Your task to perform on an android device: toggle improve location accuracy Image 0: 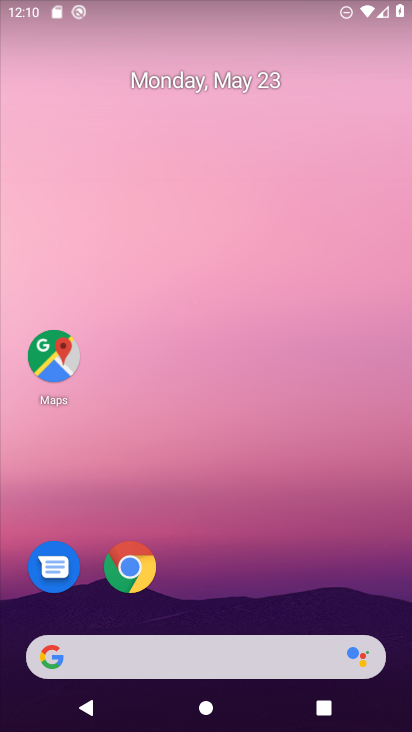
Step 0: drag from (172, 608) to (243, 88)
Your task to perform on an android device: toggle improve location accuracy Image 1: 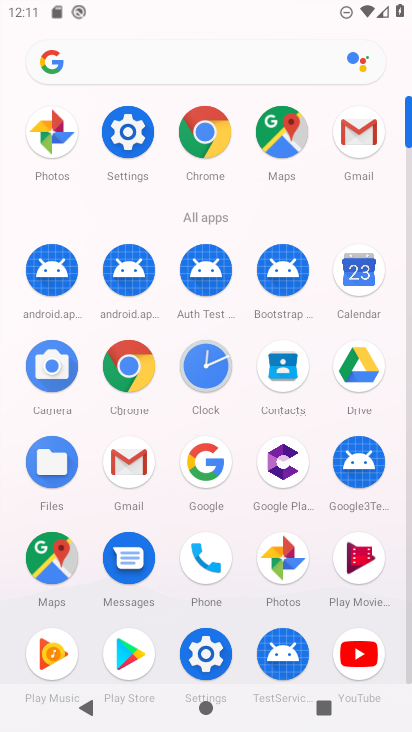
Step 1: click (122, 148)
Your task to perform on an android device: toggle improve location accuracy Image 2: 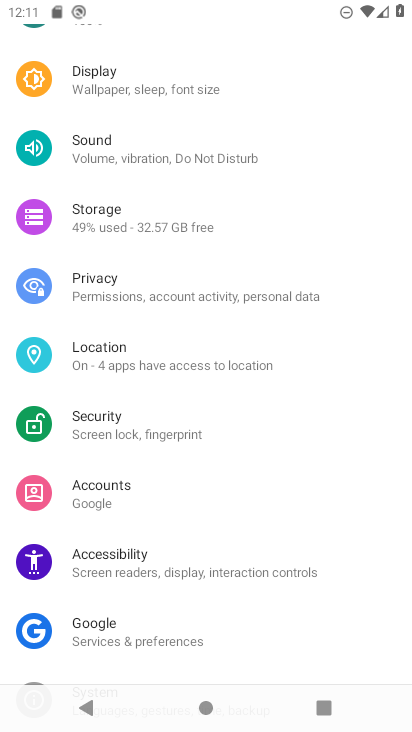
Step 2: click (104, 301)
Your task to perform on an android device: toggle improve location accuracy Image 3: 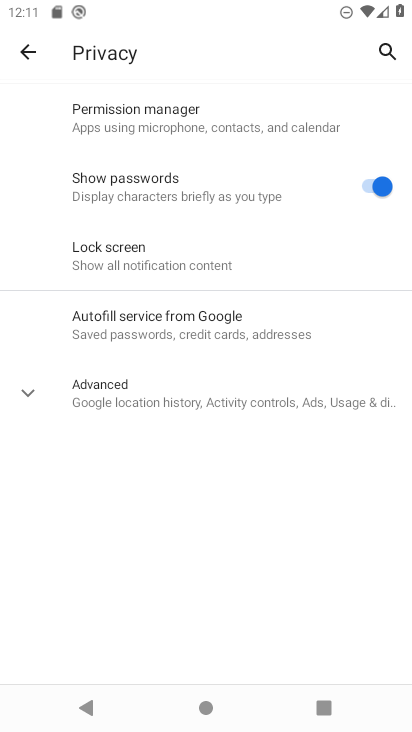
Step 3: click (41, 73)
Your task to perform on an android device: toggle improve location accuracy Image 4: 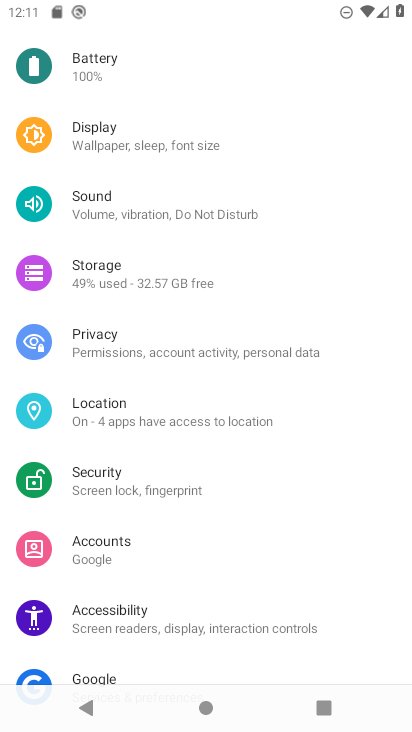
Step 4: click (100, 420)
Your task to perform on an android device: toggle improve location accuracy Image 5: 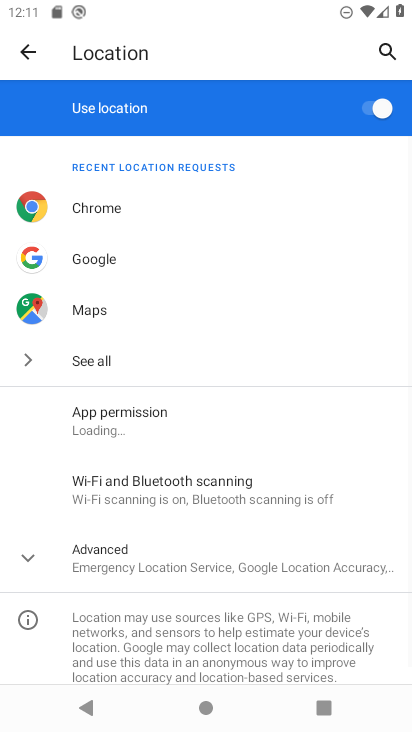
Step 5: click (105, 566)
Your task to perform on an android device: toggle improve location accuracy Image 6: 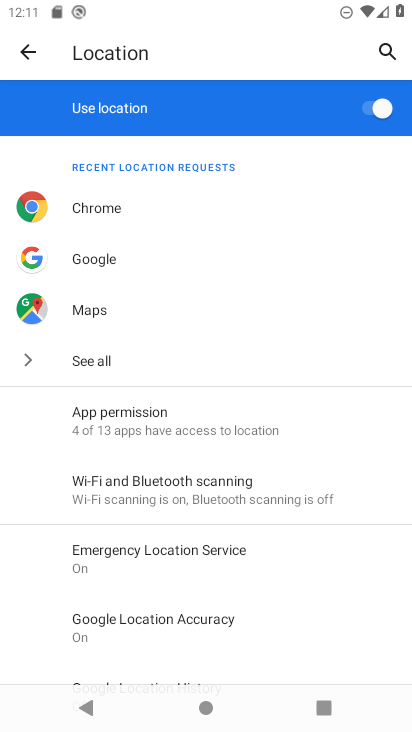
Step 6: click (126, 619)
Your task to perform on an android device: toggle improve location accuracy Image 7: 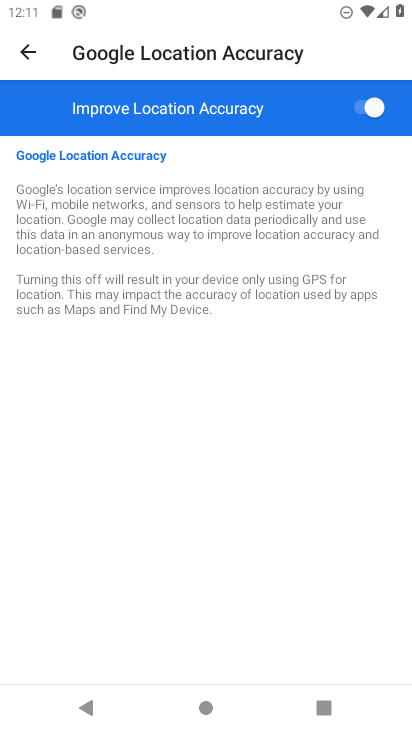
Step 7: click (365, 110)
Your task to perform on an android device: toggle improve location accuracy Image 8: 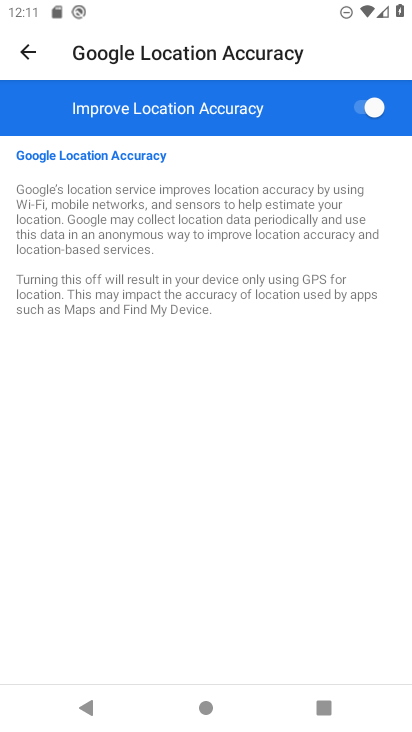
Step 8: click (365, 110)
Your task to perform on an android device: toggle improve location accuracy Image 9: 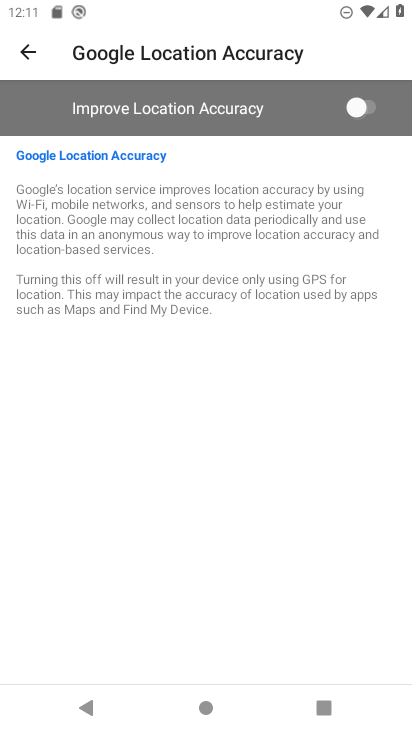
Step 9: click (365, 110)
Your task to perform on an android device: toggle improve location accuracy Image 10: 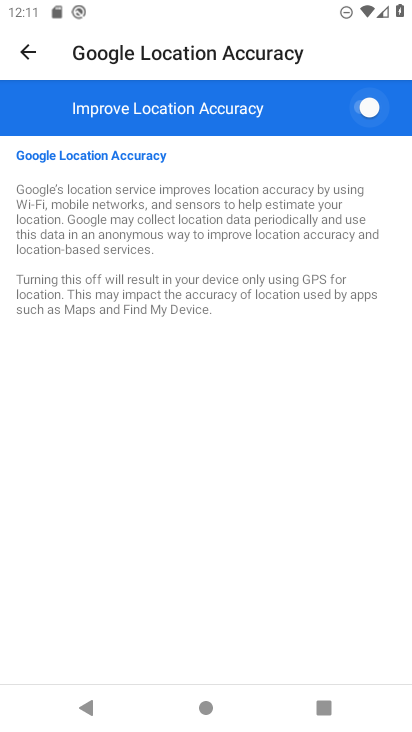
Step 10: click (365, 110)
Your task to perform on an android device: toggle improve location accuracy Image 11: 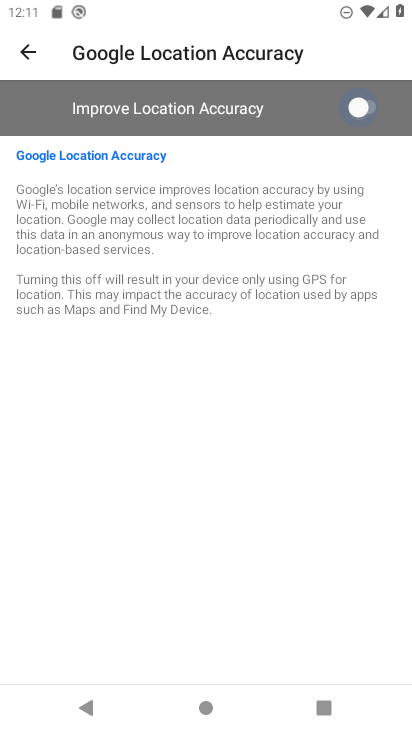
Step 11: click (365, 110)
Your task to perform on an android device: toggle improve location accuracy Image 12: 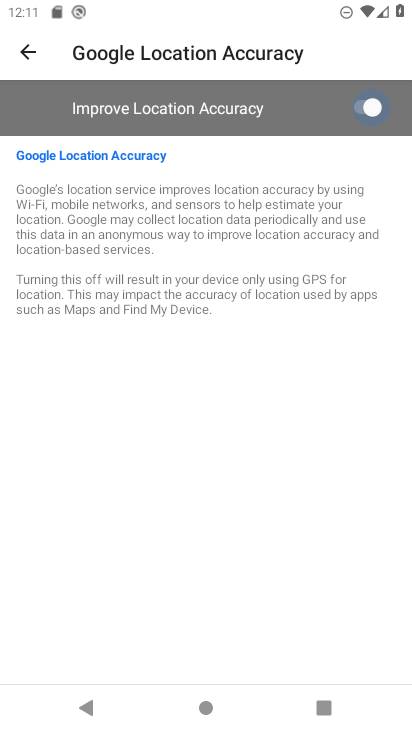
Step 12: click (365, 110)
Your task to perform on an android device: toggle improve location accuracy Image 13: 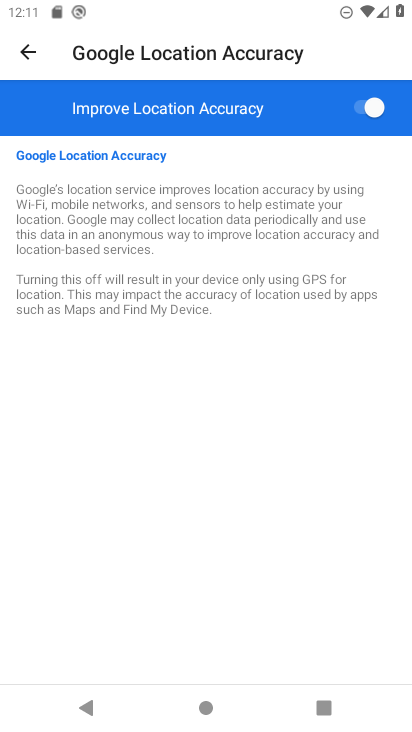
Step 13: click (365, 110)
Your task to perform on an android device: toggle improve location accuracy Image 14: 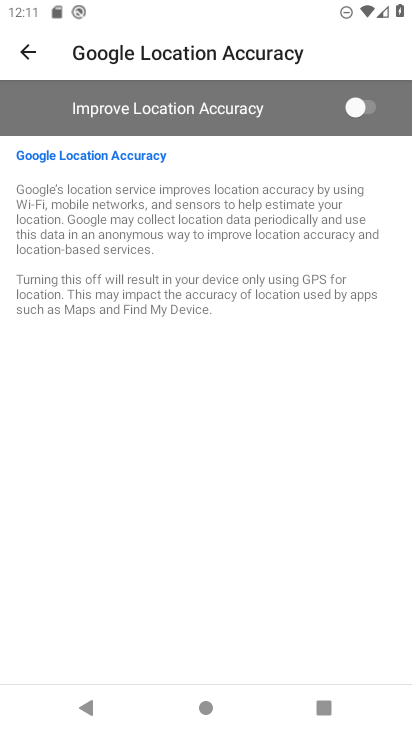
Step 14: task complete